Your task to perform on an android device: toggle priority inbox in the gmail app Image 0: 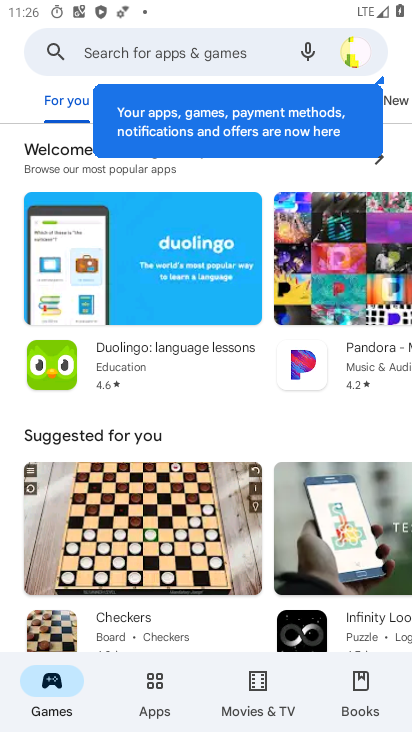
Step 0: press home button
Your task to perform on an android device: toggle priority inbox in the gmail app Image 1: 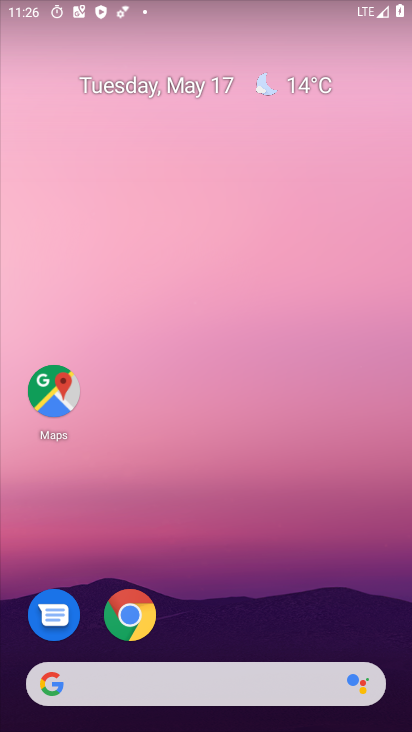
Step 1: drag from (189, 686) to (309, 199)
Your task to perform on an android device: toggle priority inbox in the gmail app Image 2: 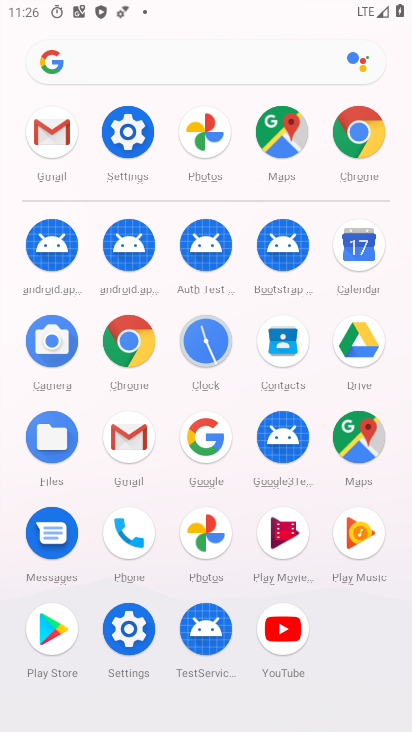
Step 2: click (56, 135)
Your task to perform on an android device: toggle priority inbox in the gmail app Image 3: 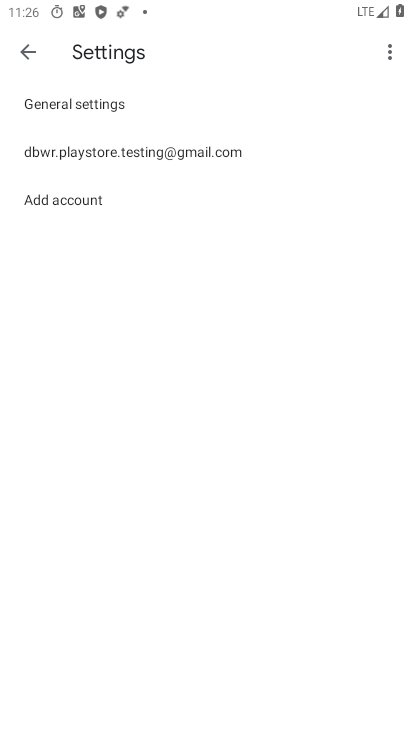
Step 3: click (112, 156)
Your task to perform on an android device: toggle priority inbox in the gmail app Image 4: 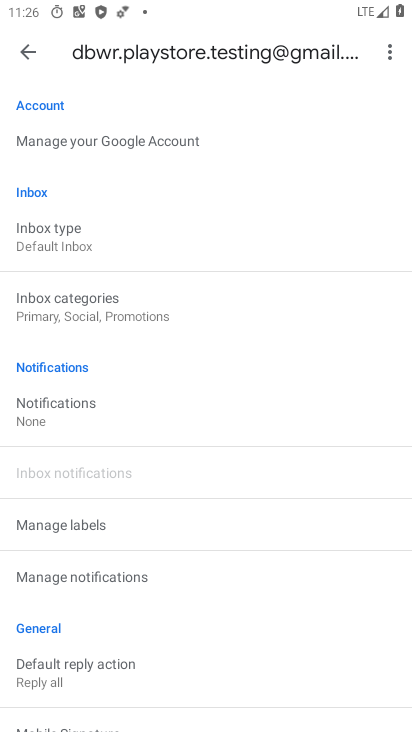
Step 4: click (75, 241)
Your task to perform on an android device: toggle priority inbox in the gmail app Image 5: 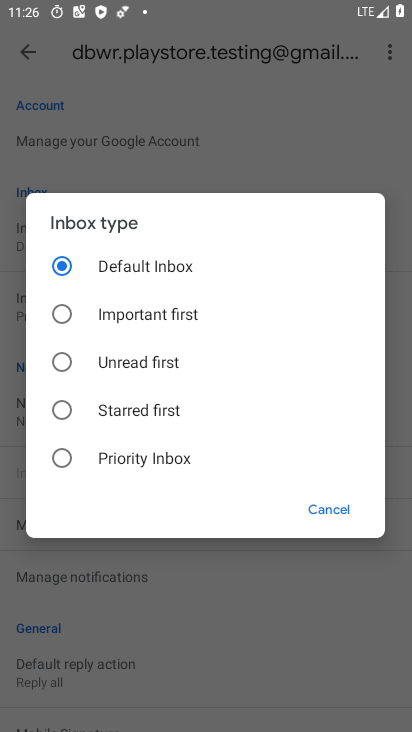
Step 5: click (67, 460)
Your task to perform on an android device: toggle priority inbox in the gmail app Image 6: 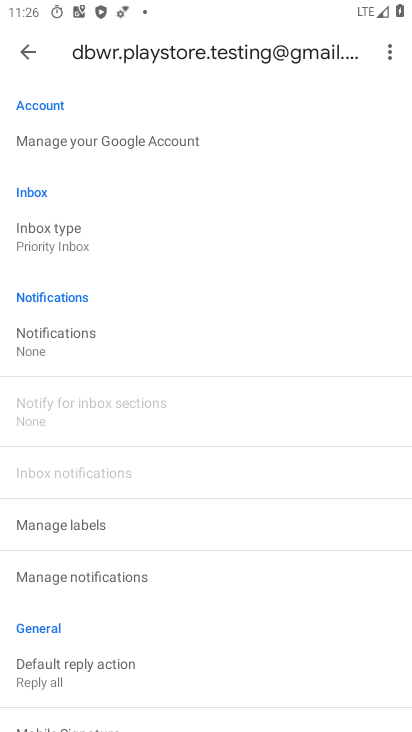
Step 6: task complete